Your task to perform on an android device: Go to Google maps Image 0: 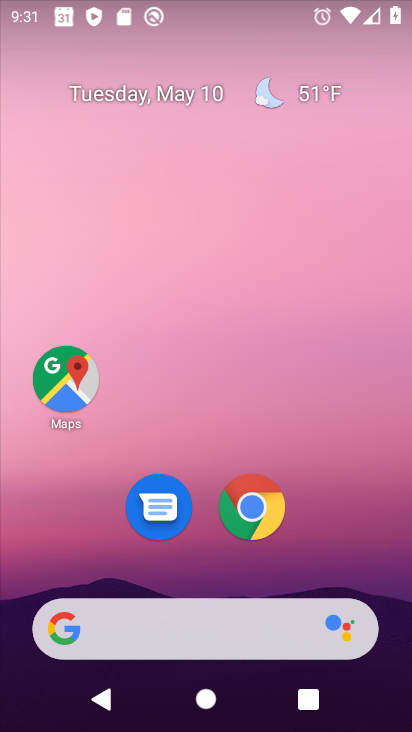
Step 0: click (60, 384)
Your task to perform on an android device: Go to Google maps Image 1: 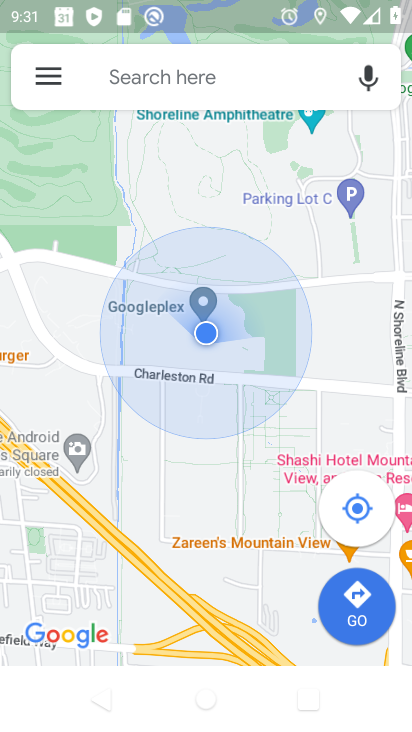
Step 1: task complete